Your task to perform on an android device: check storage Image 0: 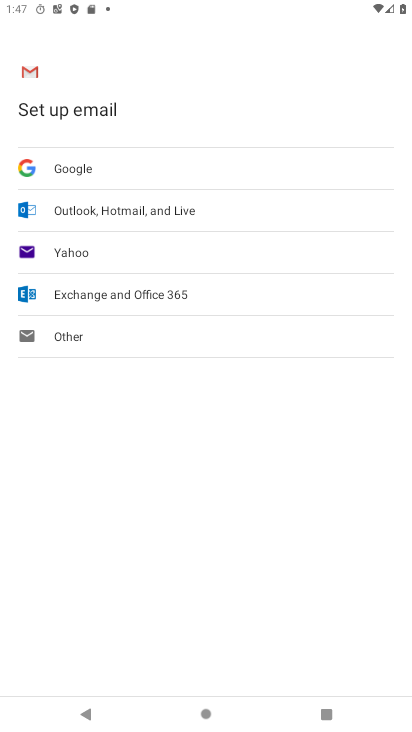
Step 0: press home button
Your task to perform on an android device: check storage Image 1: 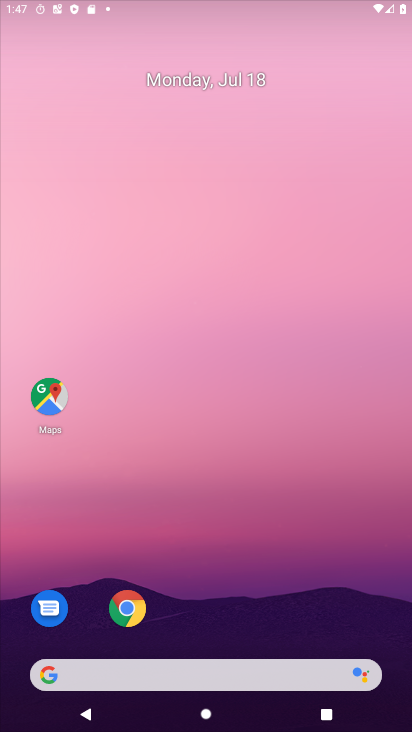
Step 1: drag from (237, 724) to (229, 99)
Your task to perform on an android device: check storage Image 2: 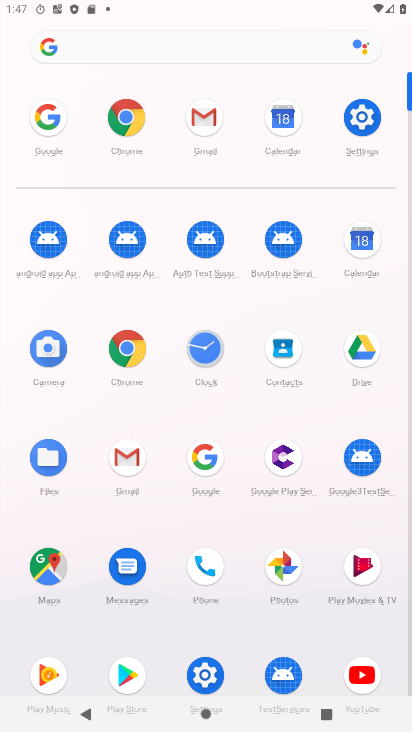
Step 2: click (351, 114)
Your task to perform on an android device: check storage Image 3: 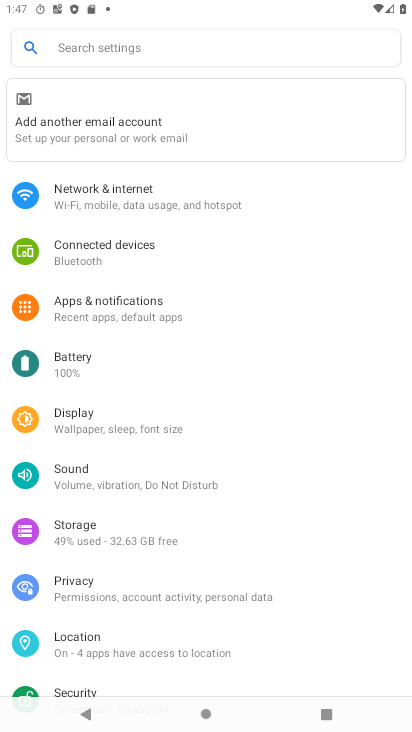
Step 3: click (83, 532)
Your task to perform on an android device: check storage Image 4: 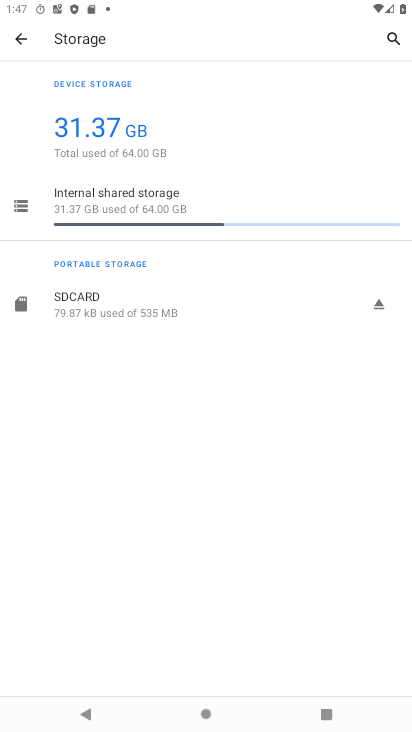
Step 4: task complete